Your task to perform on an android device: turn off javascript in the chrome app Image 0: 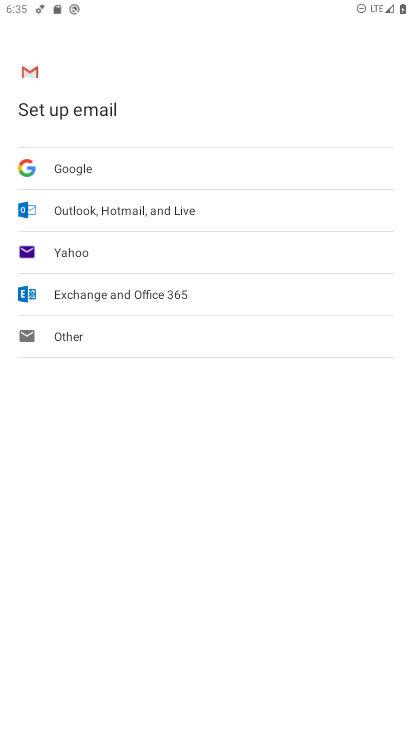
Step 0: press home button
Your task to perform on an android device: turn off javascript in the chrome app Image 1: 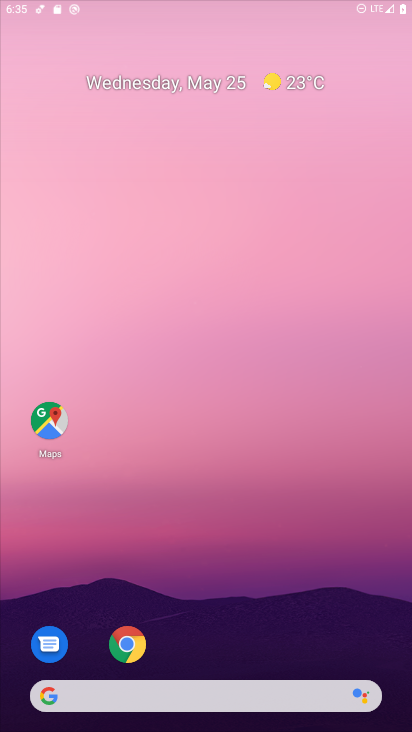
Step 1: drag from (369, 580) to (235, 1)
Your task to perform on an android device: turn off javascript in the chrome app Image 2: 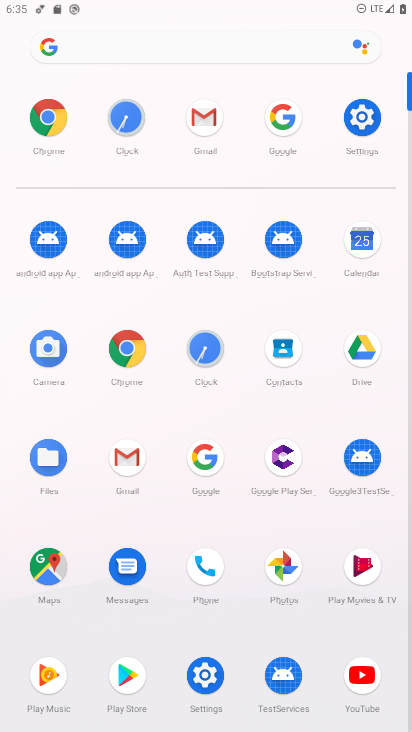
Step 2: click (127, 349)
Your task to perform on an android device: turn off javascript in the chrome app Image 3: 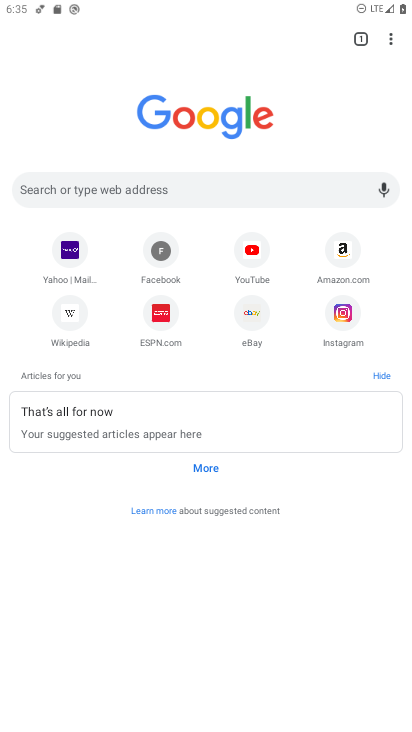
Step 3: click (390, 35)
Your task to perform on an android device: turn off javascript in the chrome app Image 4: 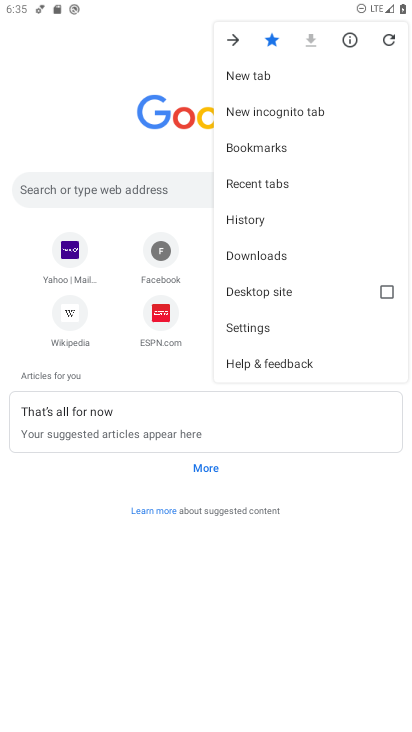
Step 4: click (289, 327)
Your task to perform on an android device: turn off javascript in the chrome app Image 5: 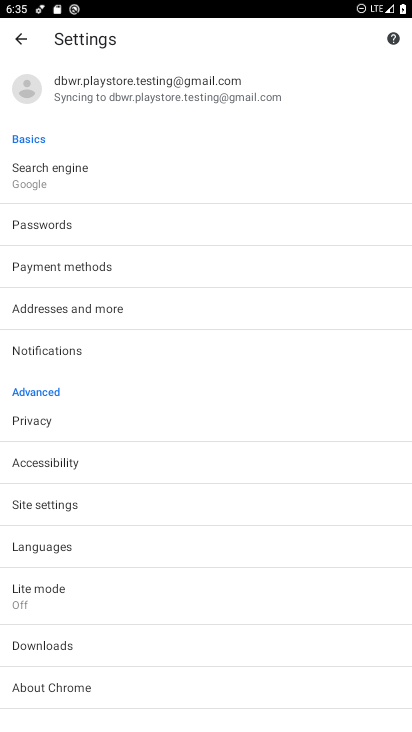
Step 5: click (111, 501)
Your task to perform on an android device: turn off javascript in the chrome app Image 6: 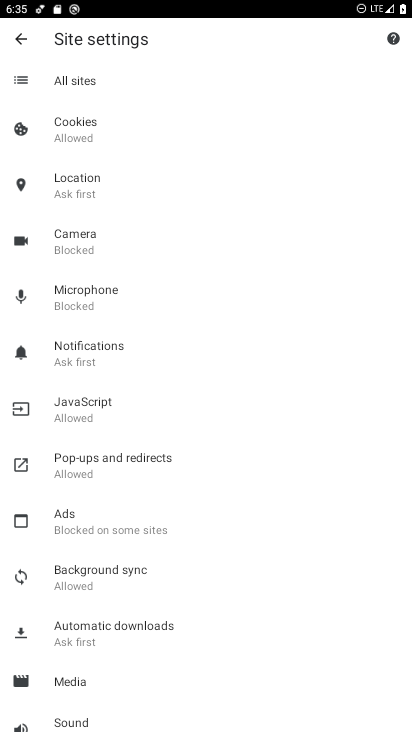
Step 6: click (92, 386)
Your task to perform on an android device: turn off javascript in the chrome app Image 7: 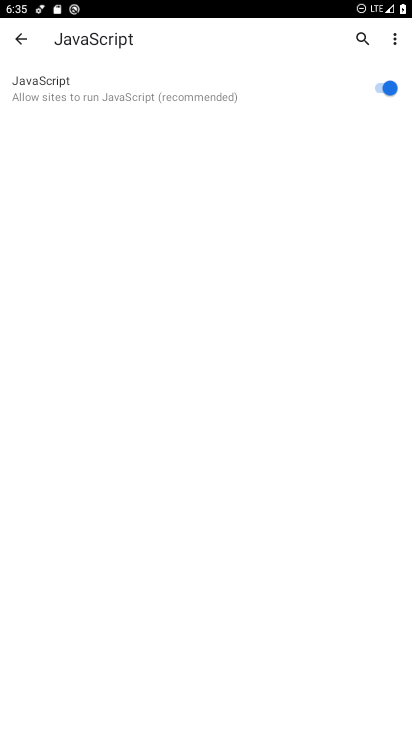
Step 7: click (367, 75)
Your task to perform on an android device: turn off javascript in the chrome app Image 8: 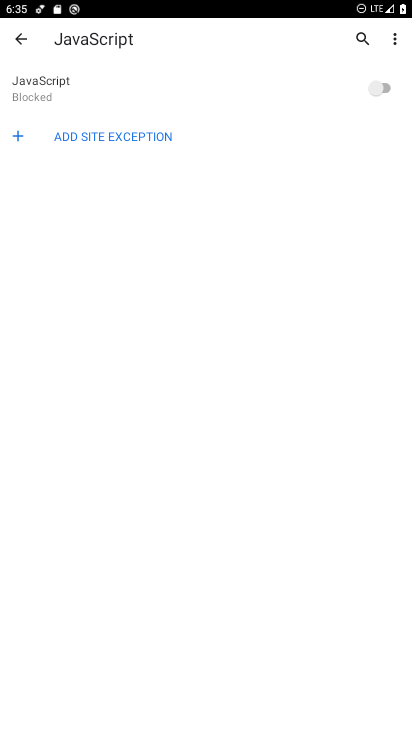
Step 8: task complete